Your task to perform on an android device: Open the map Image 0: 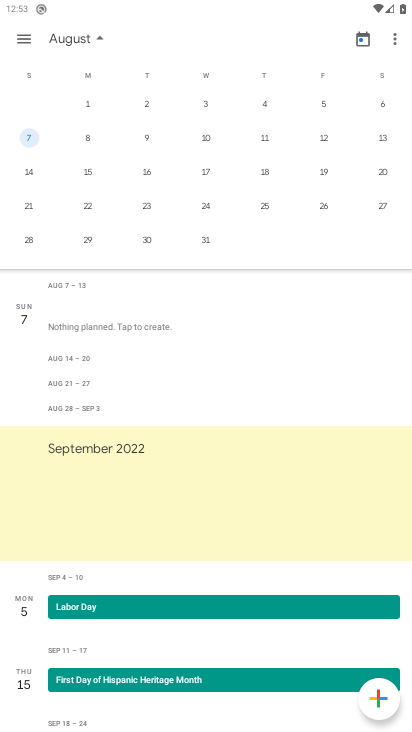
Step 0: press home button
Your task to perform on an android device: Open the map Image 1: 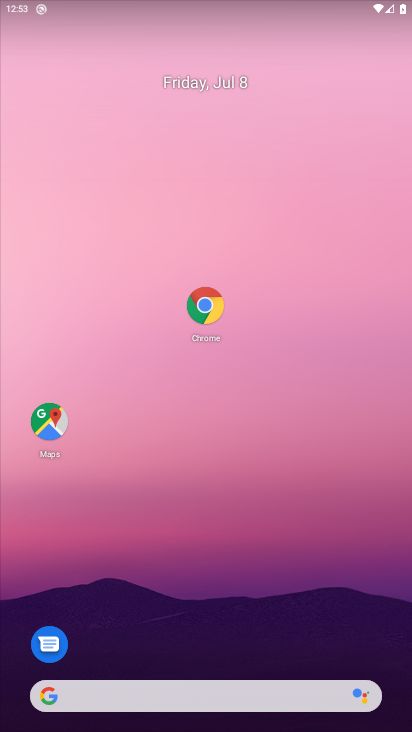
Step 1: click (48, 418)
Your task to perform on an android device: Open the map Image 2: 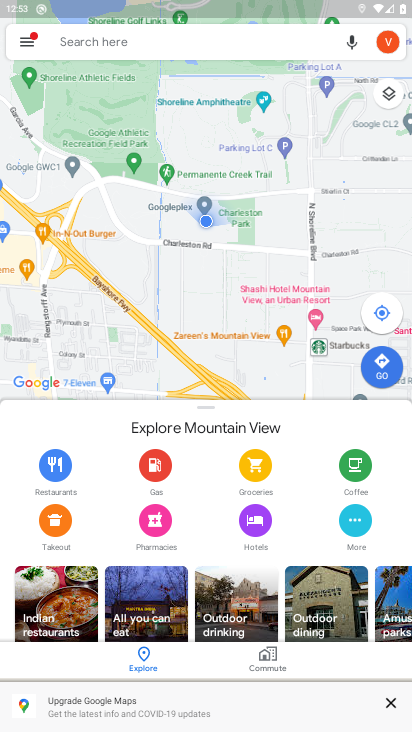
Step 2: task complete